Your task to perform on an android device: Go to Google maps Image 0: 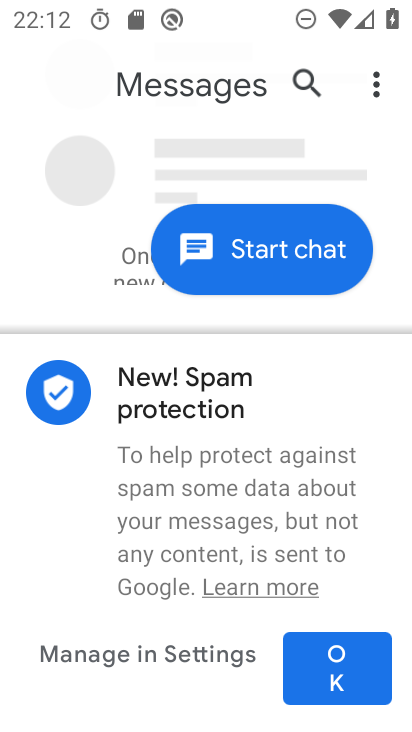
Step 0: press home button
Your task to perform on an android device: Go to Google maps Image 1: 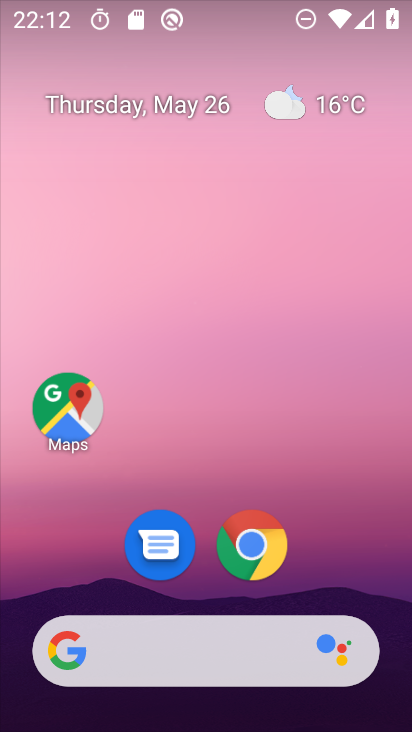
Step 1: click (77, 409)
Your task to perform on an android device: Go to Google maps Image 2: 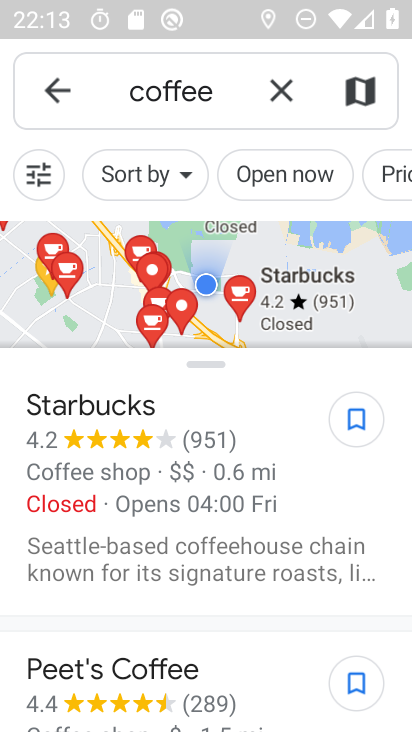
Step 2: task complete